Your task to perform on an android device: What is the recent news? Image 0: 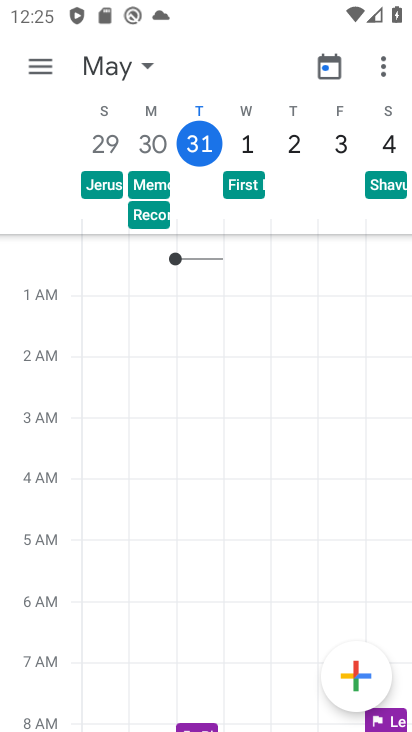
Step 0: press home button
Your task to perform on an android device: What is the recent news? Image 1: 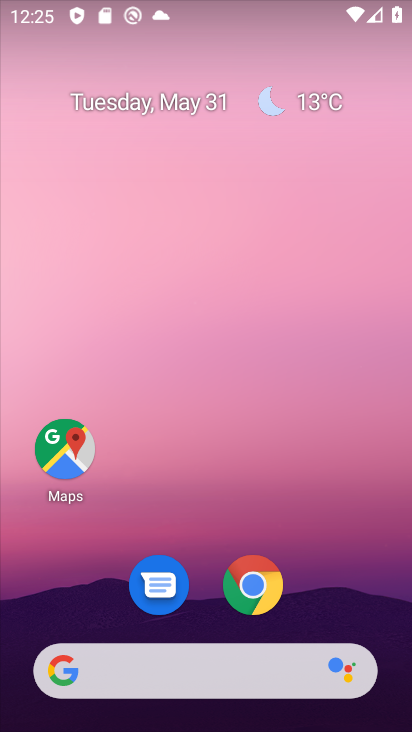
Step 1: click (268, 671)
Your task to perform on an android device: What is the recent news? Image 2: 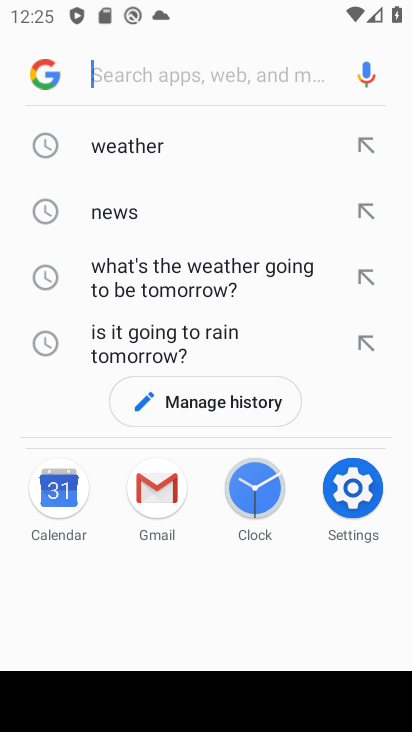
Step 2: click (120, 206)
Your task to perform on an android device: What is the recent news? Image 3: 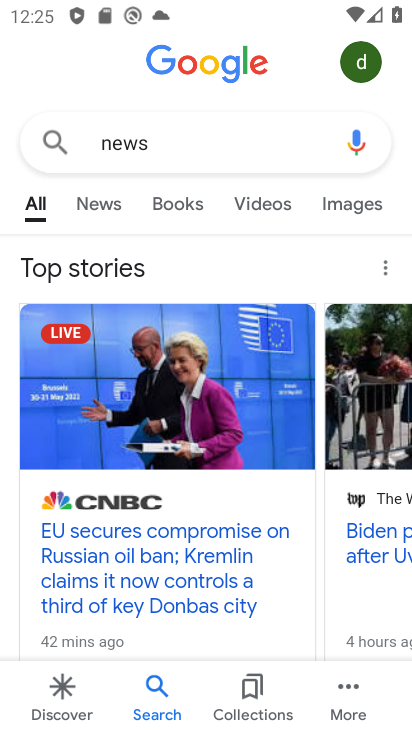
Step 3: click (87, 195)
Your task to perform on an android device: What is the recent news? Image 4: 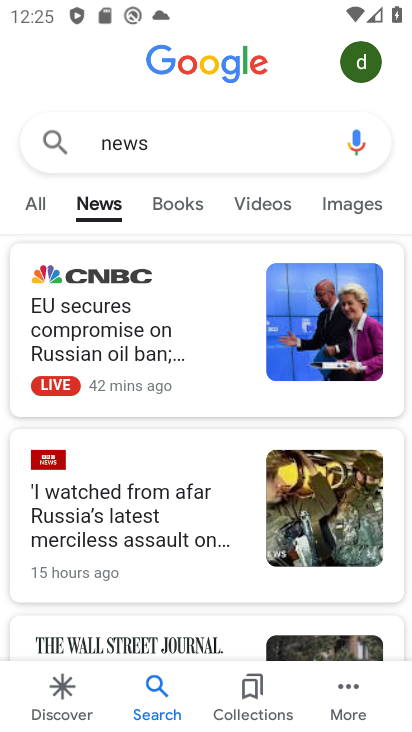
Step 4: click (140, 329)
Your task to perform on an android device: What is the recent news? Image 5: 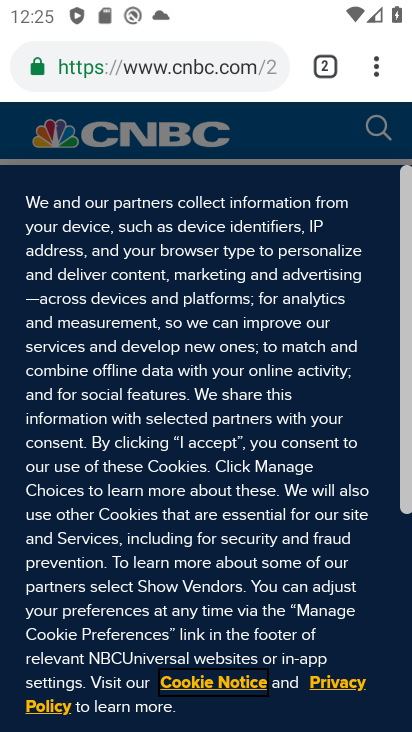
Step 5: drag from (233, 452) to (237, 203)
Your task to perform on an android device: What is the recent news? Image 6: 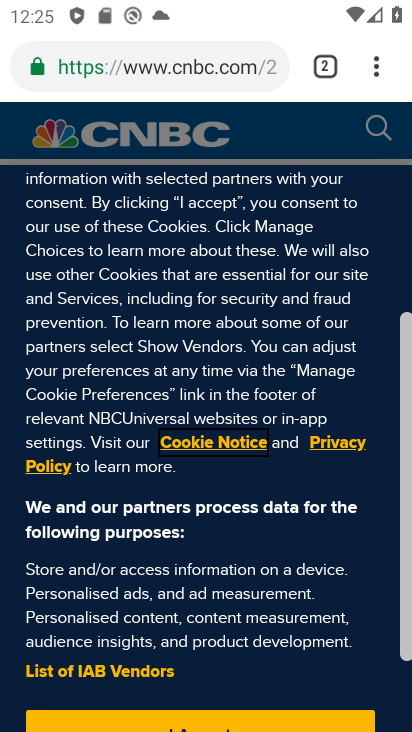
Step 6: drag from (243, 554) to (241, 269)
Your task to perform on an android device: What is the recent news? Image 7: 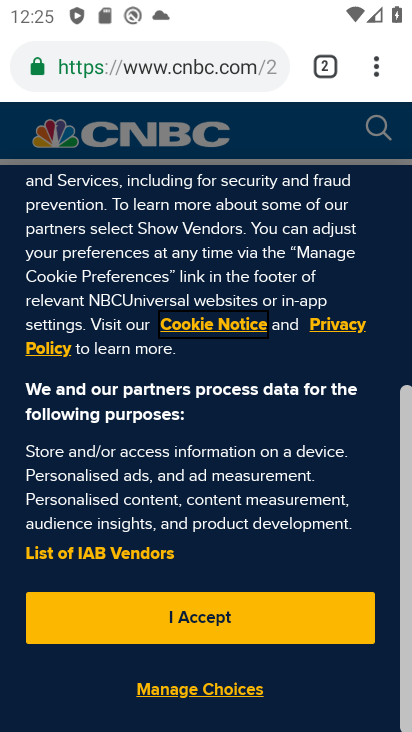
Step 7: click (280, 621)
Your task to perform on an android device: What is the recent news? Image 8: 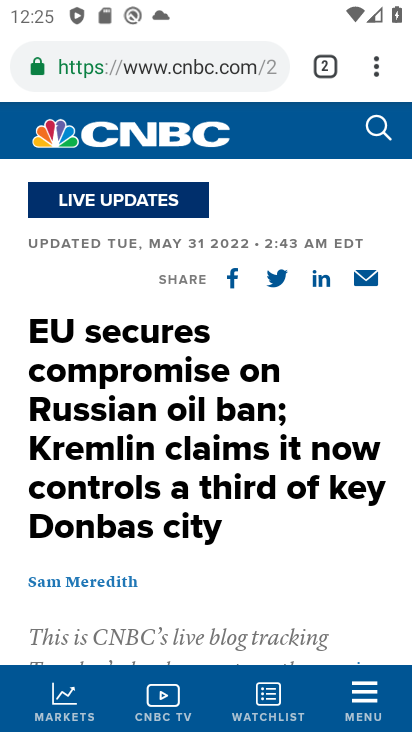
Step 8: task complete